Your task to perform on an android device: Show me the alarms in the clock app Image 0: 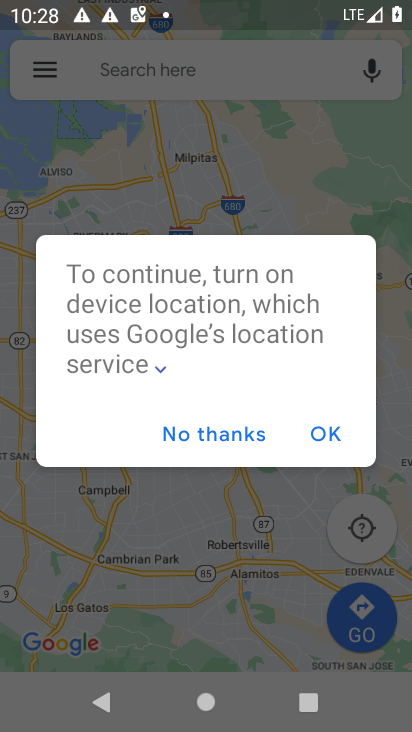
Step 0: press home button
Your task to perform on an android device: Show me the alarms in the clock app Image 1: 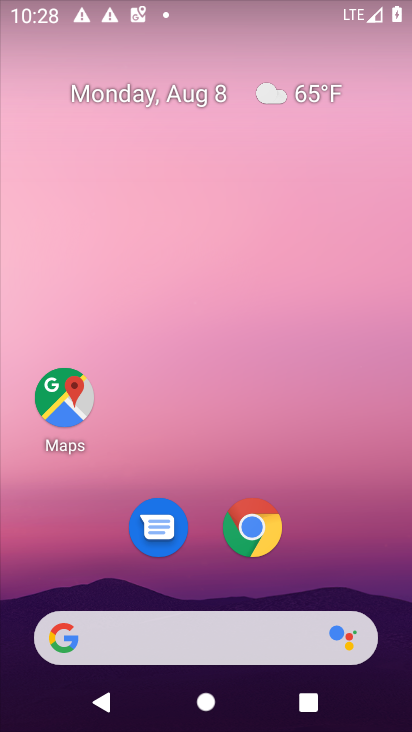
Step 1: drag from (380, 708) to (333, 125)
Your task to perform on an android device: Show me the alarms in the clock app Image 2: 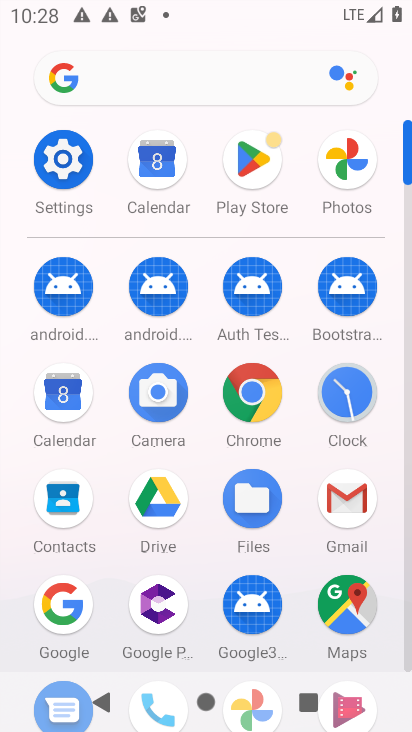
Step 2: click (364, 393)
Your task to perform on an android device: Show me the alarms in the clock app Image 3: 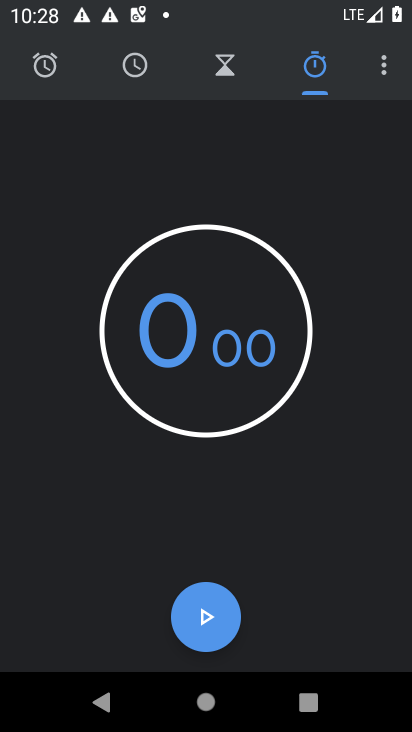
Step 3: click (382, 65)
Your task to perform on an android device: Show me the alarms in the clock app Image 4: 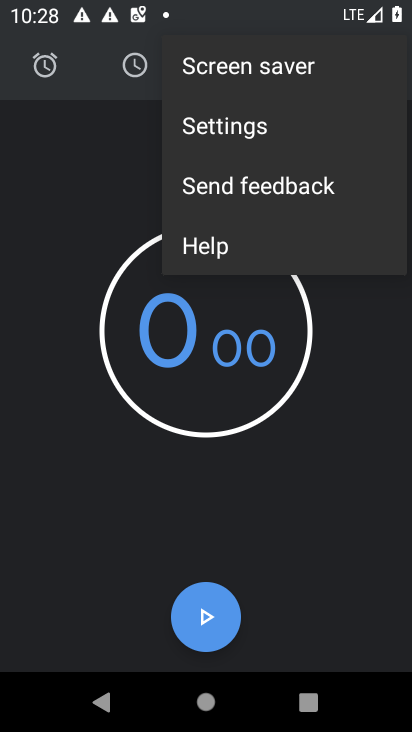
Step 4: click (89, 121)
Your task to perform on an android device: Show me the alarms in the clock app Image 5: 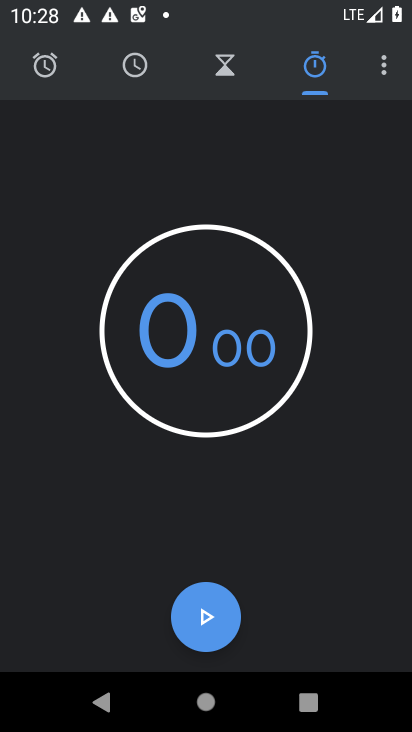
Step 5: click (50, 66)
Your task to perform on an android device: Show me the alarms in the clock app Image 6: 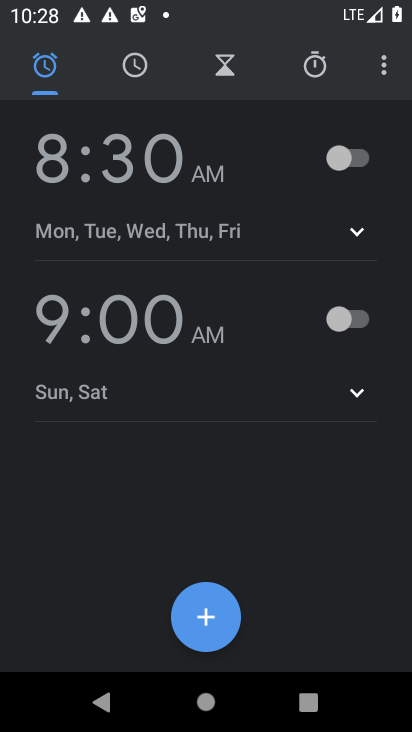
Step 6: click (363, 150)
Your task to perform on an android device: Show me the alarms in the clock app Image 7: 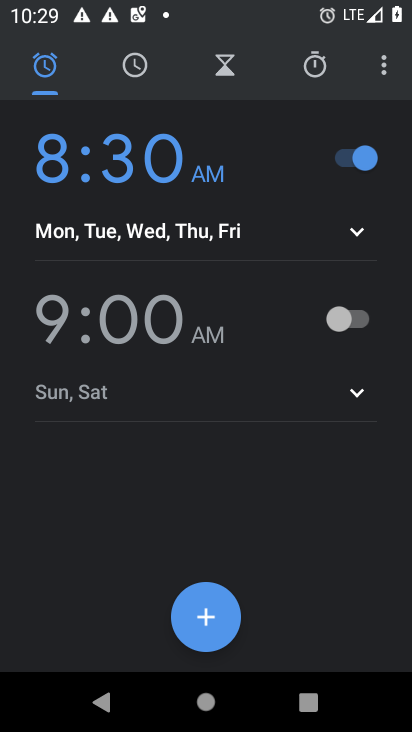
Step 7: click (341, 155)
Your task to perform on an android device: Show me the alarms in the clock app Image 8: 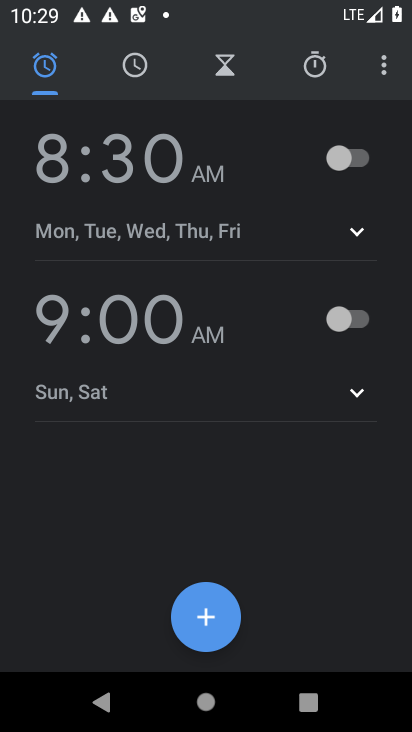
Step 8: task complete